Your task to perform on an android device: Open Google Chrome and click the shortcut for Amazon.com Image 0: 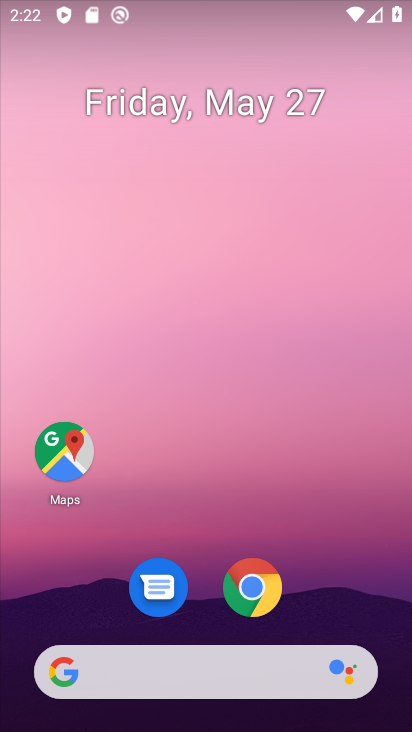
Step 0: press home button
Your task to perform on an android device: Open Google Chrome and click the shortcut for Amazon.com Image 1: 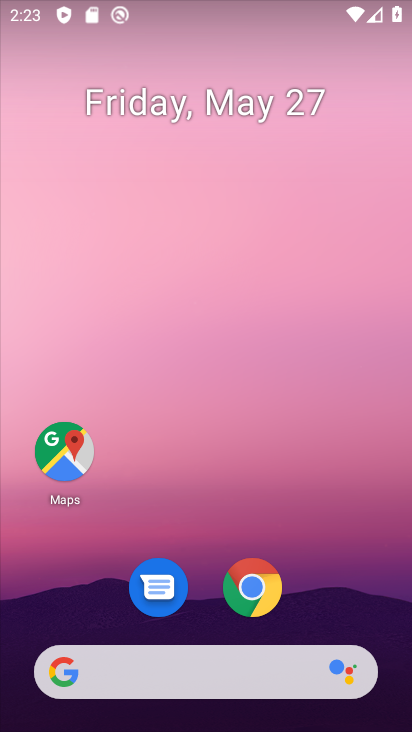
Step 1: click (265, 589)
Your task to perform on an android device: Open Google Chrome and click the shortcut for Amazon.com Image 2: 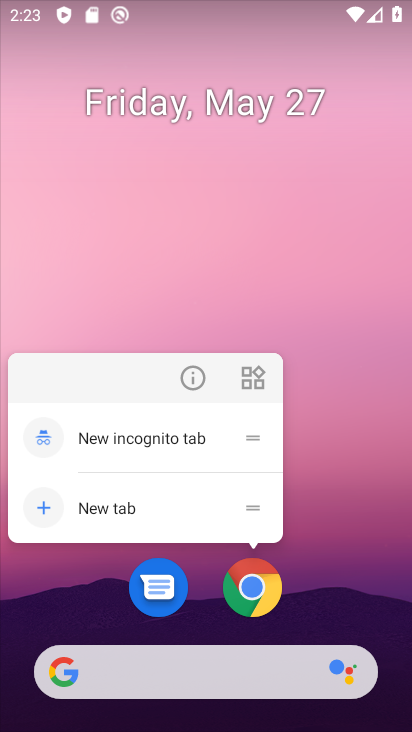
Step 2: click (270, 591)
Your task to perform on an android device: Open Google Chrome and click the shortcut for Amazon.com Image 3: 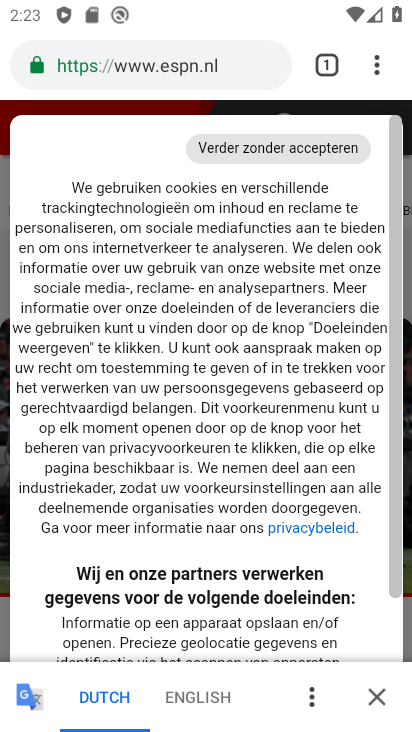
Step 3: click (330, 67)
Your task to perform on an android device: Open Google Chrome and click the shortcut for Amazon.com Image 4: 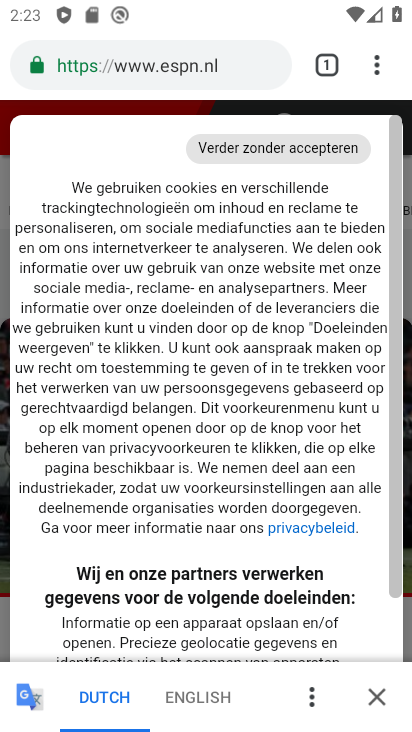
Step 4: click (325, 64)
Your task to perform on an android device: Open Google Chrome and click the shortcut for Amazon.com Image 5: 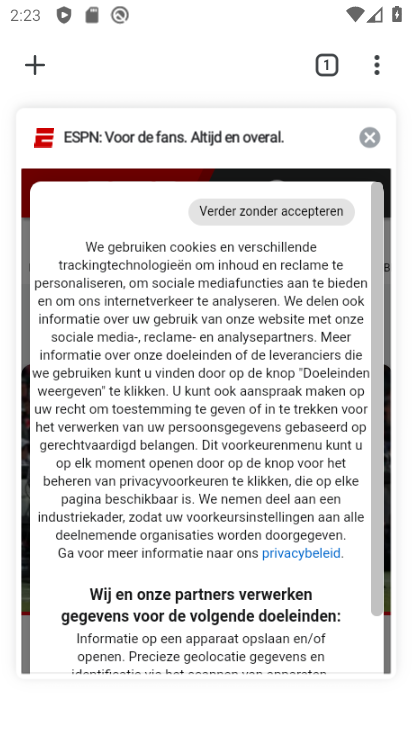
Step 5: click (33, 66)
Your task to perform on an android device: Open Google Chrome and click the shortcut for Amazon.com Image 6: 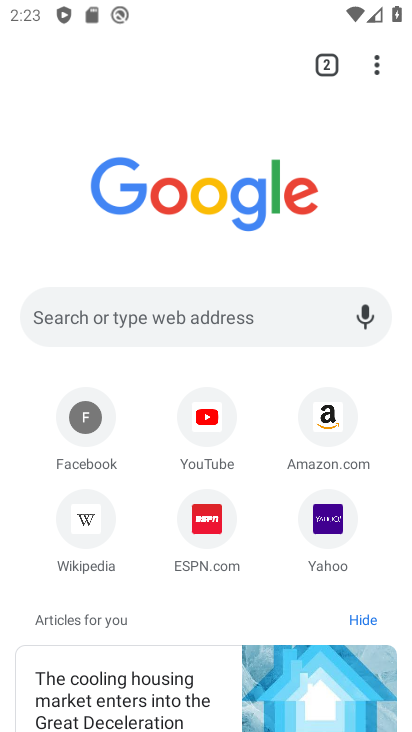
Step 6: click (317, 413)
Your task to perform on an android device: Open Google Chrome and click the shortcut for Amazon.com Image 7: 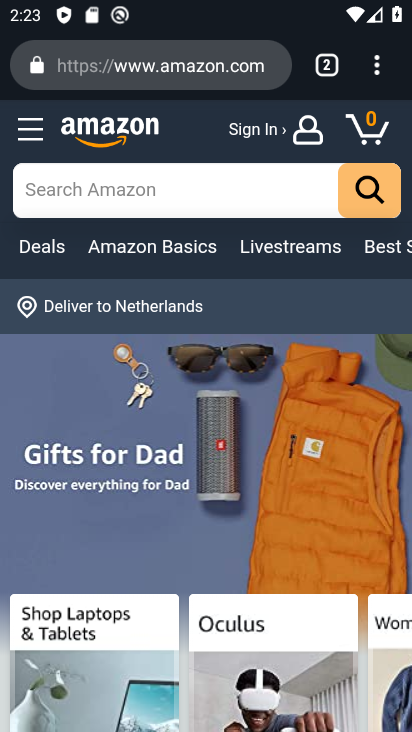
Step 7: task complete